Your task to perform on an android device: Go to Wikipedia Image 0: 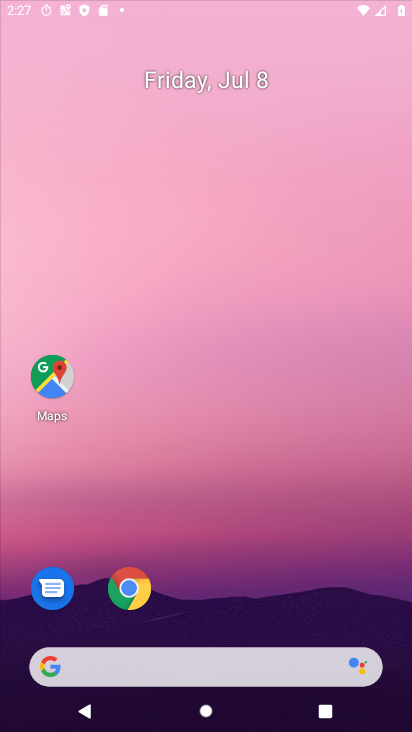
Step 0: press home button
Your task to perform on an android device: Go to Wikipedia Image 1: 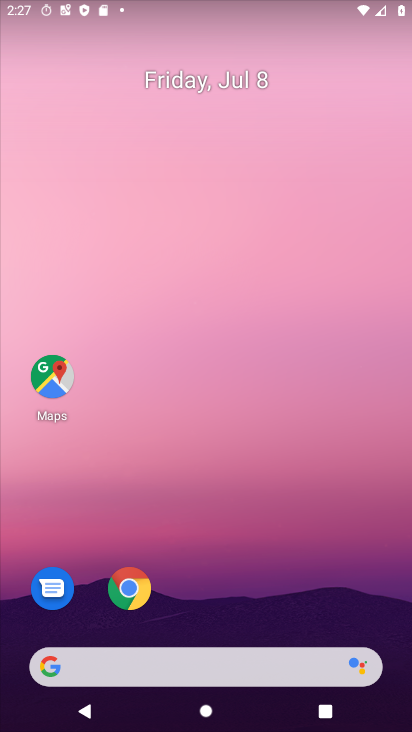
Step 1: click (45, 663)
Your task to perform on an android device: Go to Wikipedia Image 2: 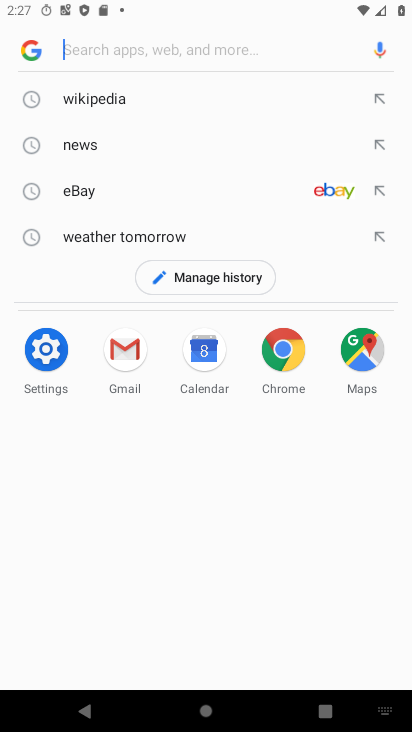
Step 2: click (95, 95)
Your task to perform on an android device: Go to Wikipedia Image 3: 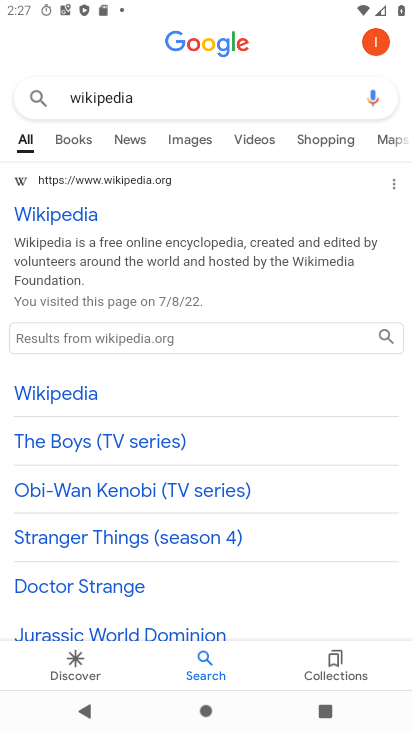
Step 3: click (55, 219)
Your task to perform on an android device: Go to Wikipedia Image 4: 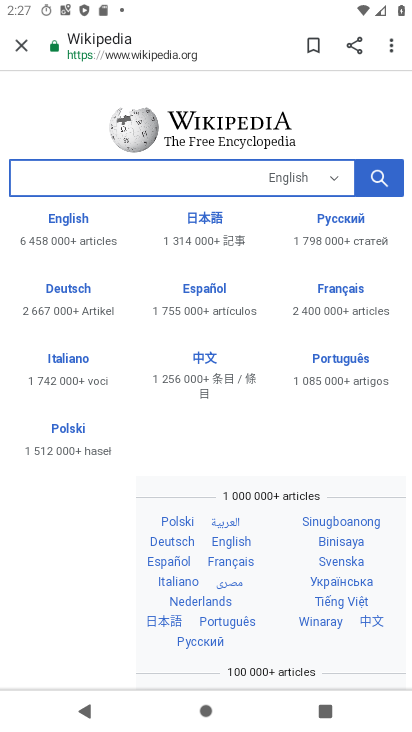
Step 4: task complete